Your task to perform on an android device: turn off picture-in-picture Image 0: 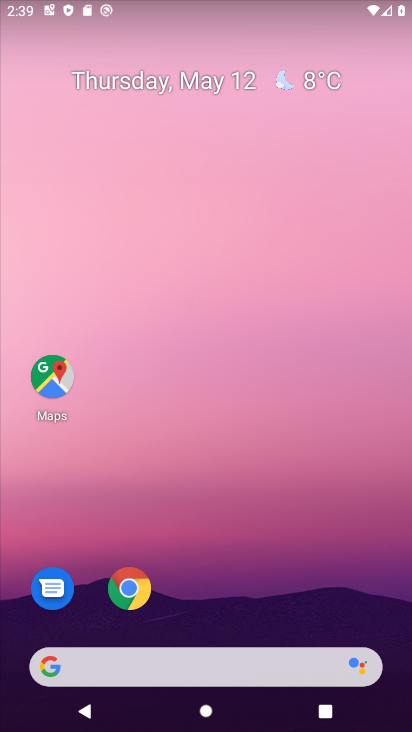
Step 0: drag from (300, 609) to (222, 30)
Your task to perform on an android device: turn off picture-in-picture Image 1: 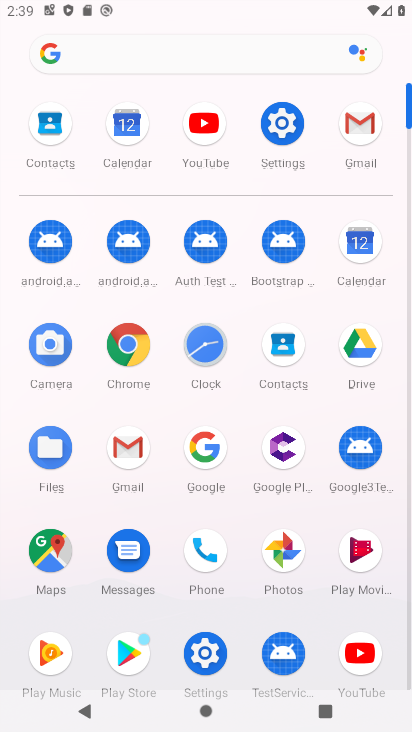
Step 1: click (293, 135)
Your task to perform on an android device: turn off picture-in-picture Image 2: 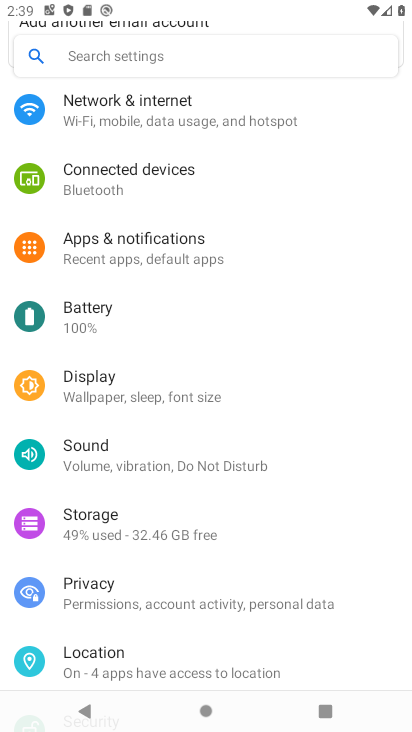
Step 2: click (253, 248)
Your task to perform on an android device: turn off picture-in-picture Image 3: 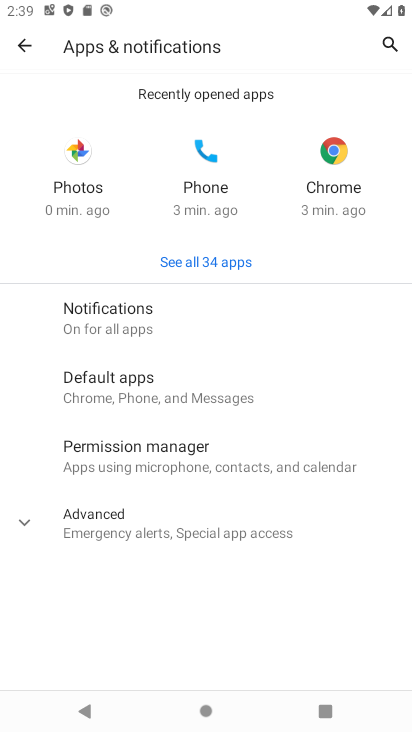
Step 3: click (211, 531)
Your task to perform on an android device: turn off picture-in-picture Image 4: 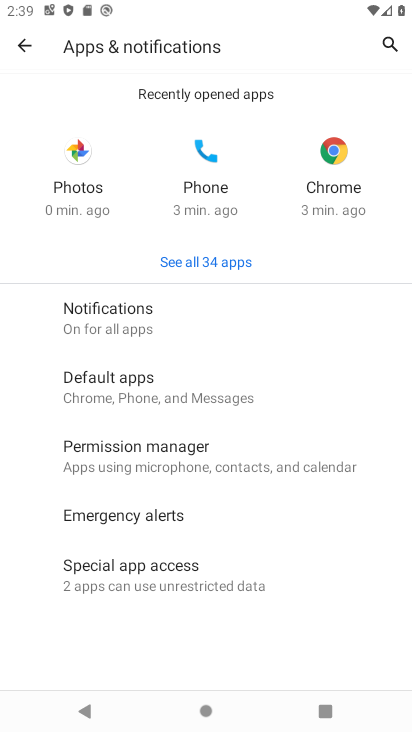
Step 4: click (211, 587)
Your task to perform on an android device: turn off picture-in-picture Image 5: 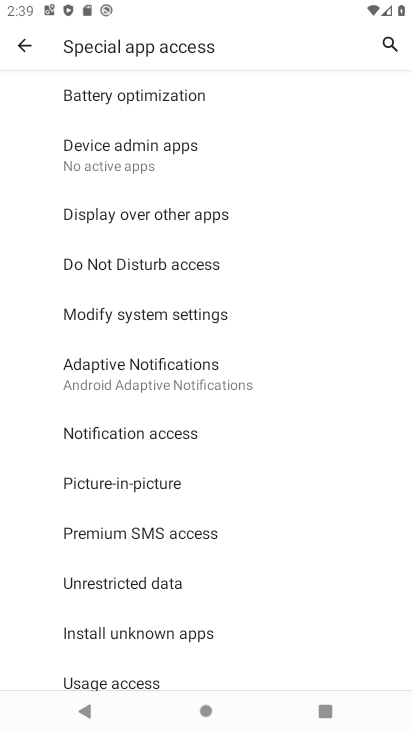
Step 5: click (175, 471)
Your task to perform on an android device: turn off picture-in-picture Image 6: 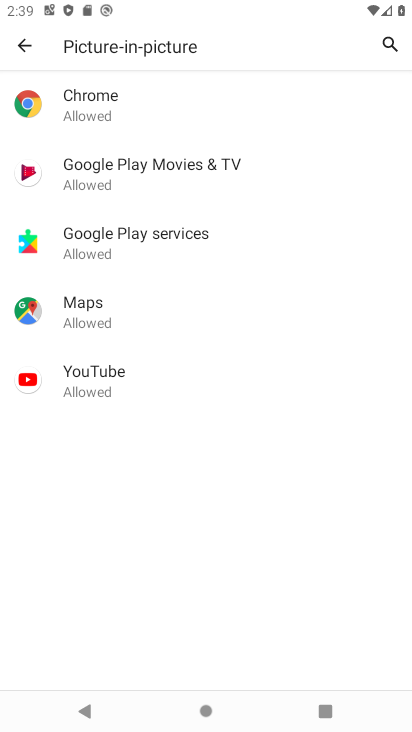
Step 6: click (301, 121)
Your task to perform on an android device: turn off picture-in-picture Image 7: 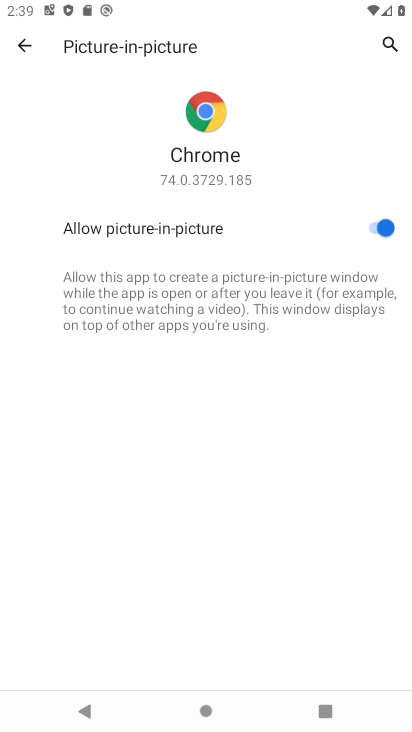
Step 7: click (344, 246)
Your task to perform on an android device: turn off picture-in-picture Image 8: 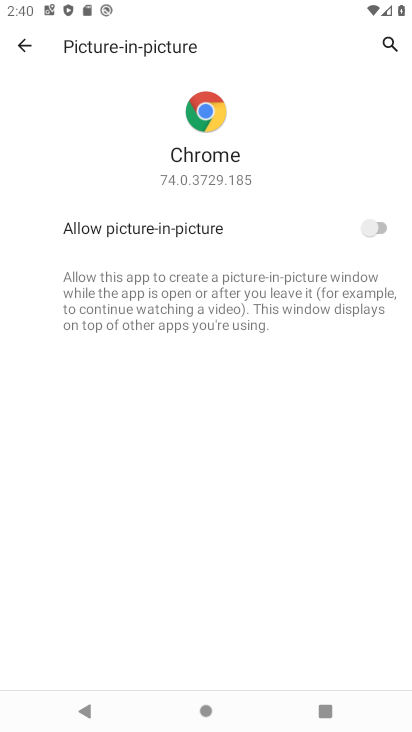
Step 8: task complete